Your task to perform on an android device: Open internet settings Image 0: 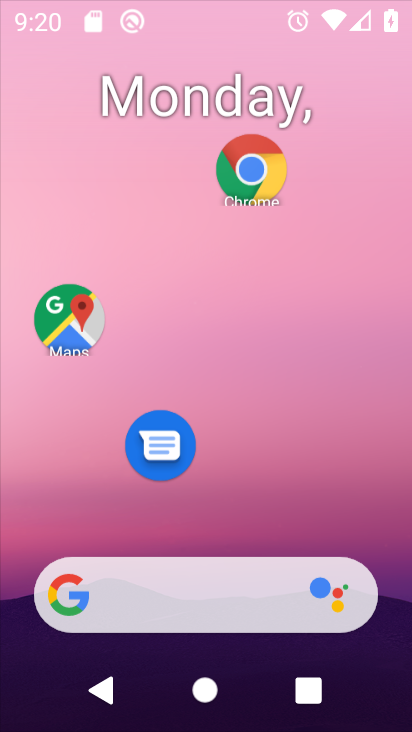
Step 0: press home button
Your task to perform on an android device: Open internet settings Image 1: 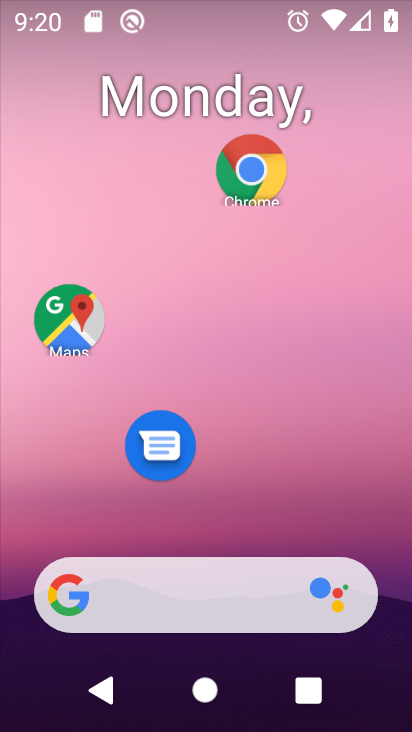
Step 1: drag from (230, 542) to (230, 167)
Your task to perform on an android device: Open internet settings Image 2: 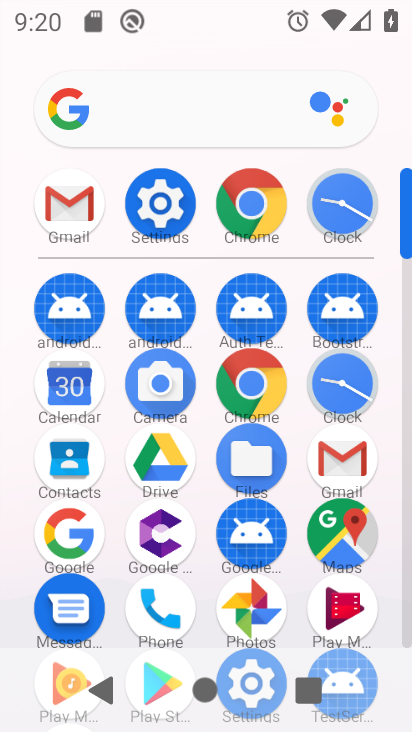
Step 2: click (156, 199)
Your task to perform on an android device: Open internet settings Image 3: 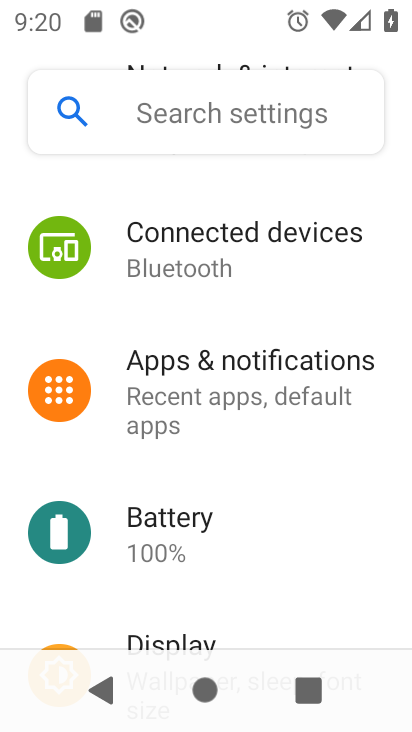
Step 3: drag from (227, 191) to (232, 563)
Your task to perform on an android device: Open internet settings Image 4: 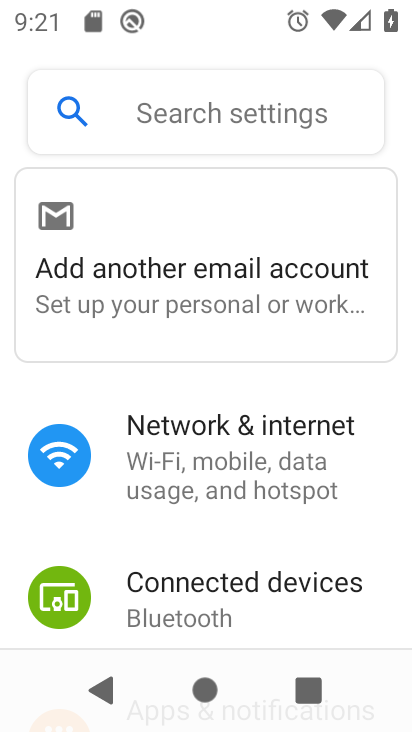
Step 4: click (233, 466)
Your task to perform on an android device: Open internet settings Image 5: 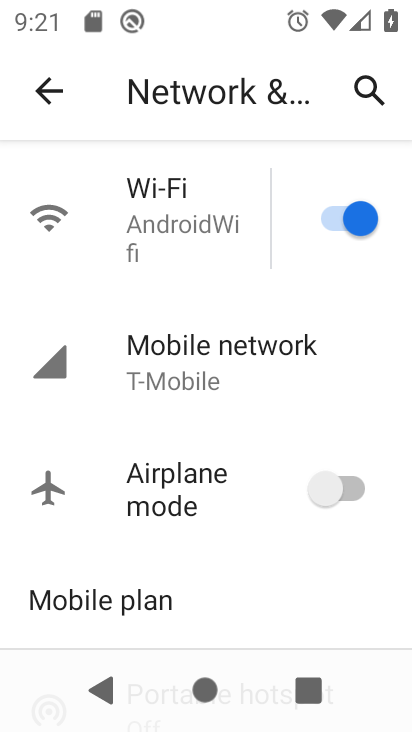
Step 5: drag from (214, 626) to (209, 133)
Your task to perform on an android device: Open internet settings Image 6: 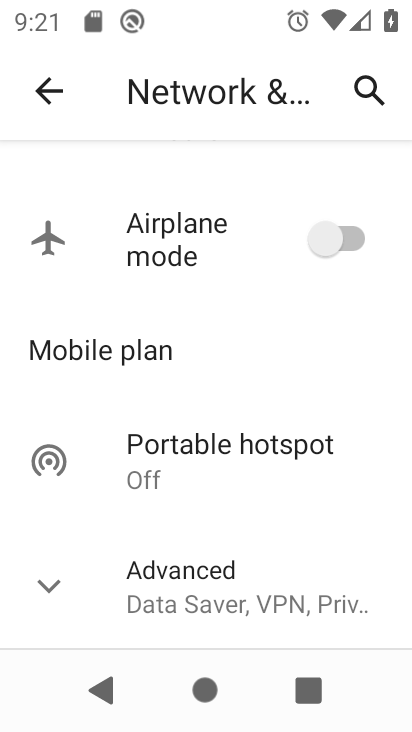
Step 6: drag from (217, 589) to (231, 54)
Your task to perform on an android device: Open internet settings Image 7: 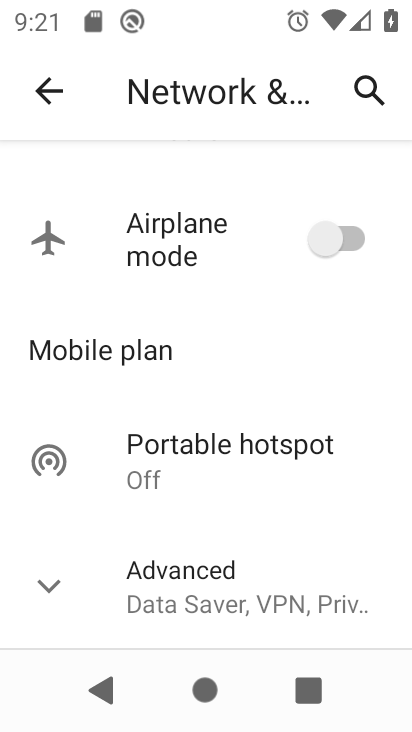
Step 7: click (56, 581)
Your task to perform on an android device: Open internet settings Image 8: 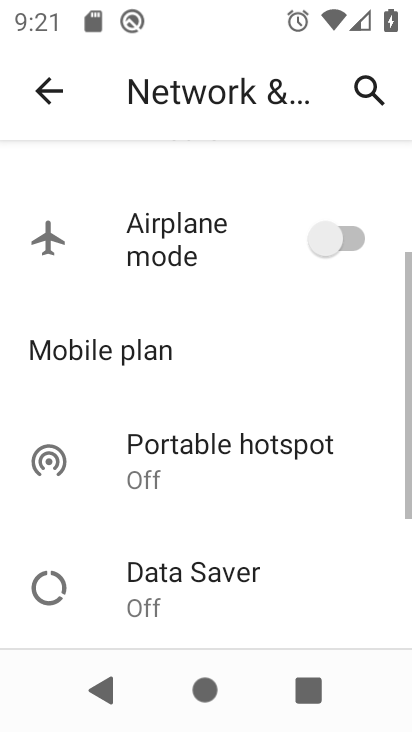
Step 8: task complete